Your task to perform on an android device: toggle notification dots Image 0: 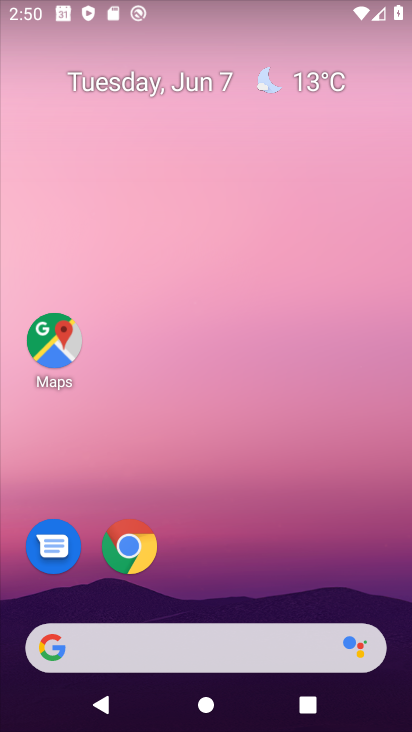
Step 0: drag from (211, 590) to (292, 135)
Your task to perform on an android device: toggle notification dots Image 1: 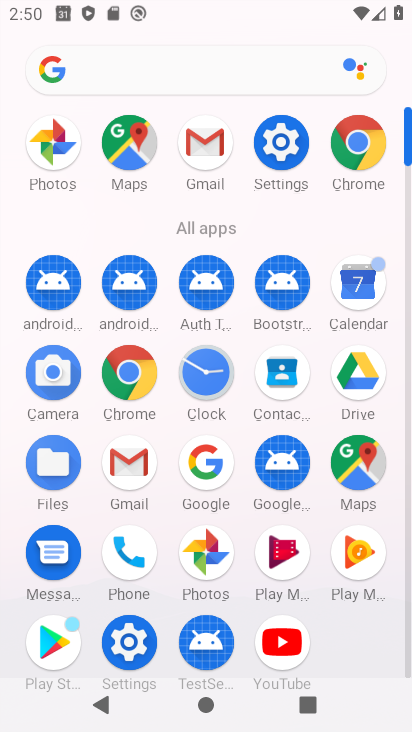
Step 1: click (280, 133)
Your task to perform on an android device: toggle notification dots Image 2: 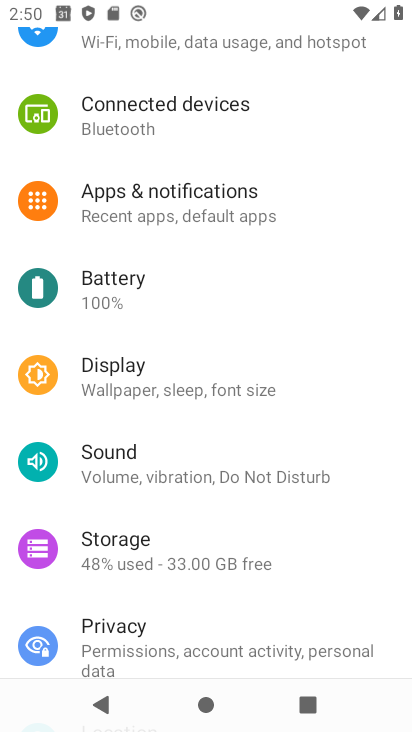
Step 2: click (155, 190)
Your task to perform on an android device: toggle notification dots Image 3: 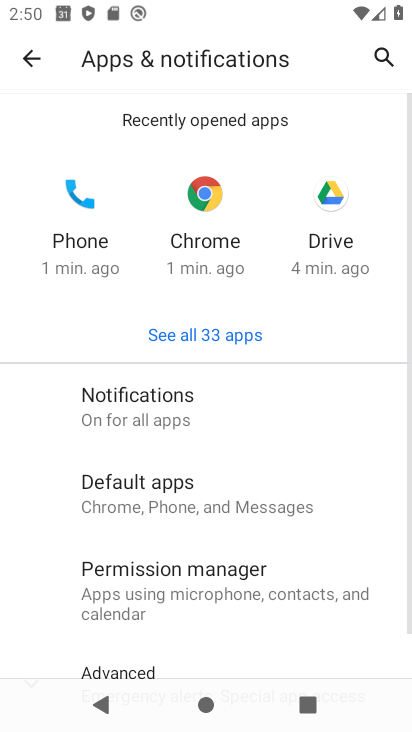
Step 3: click (146, 413)
Your task to perform on an android device: toggle notification dots Image 4: 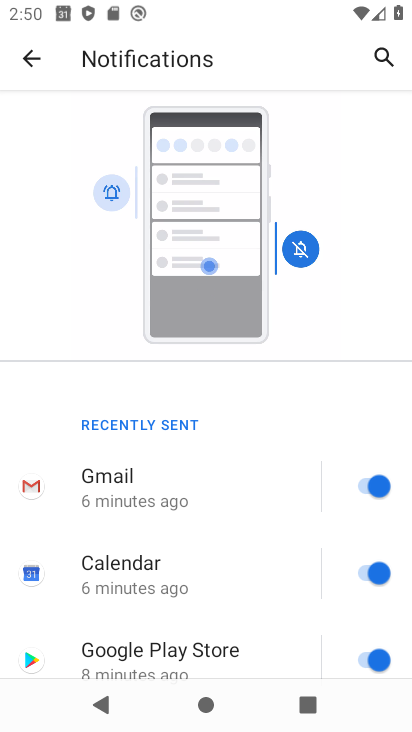
Step 4: drag from (131, 613) to (206, 202)
Your task to perform on an android device: toggle notification dots Image 5: 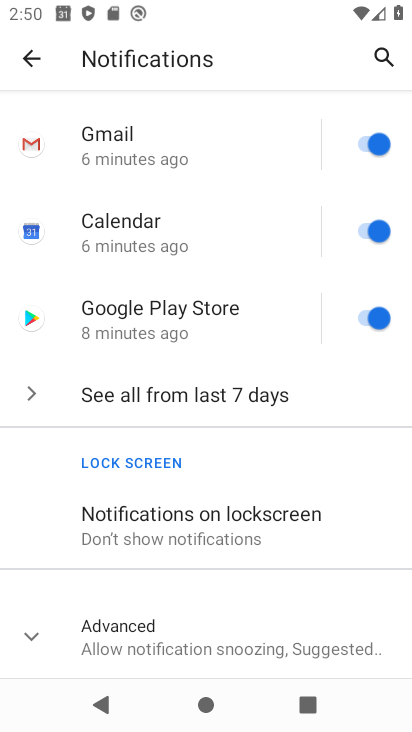
Step 5: click (152, 639)
Your task to perform on an android device: toggle notification dots Image 6: 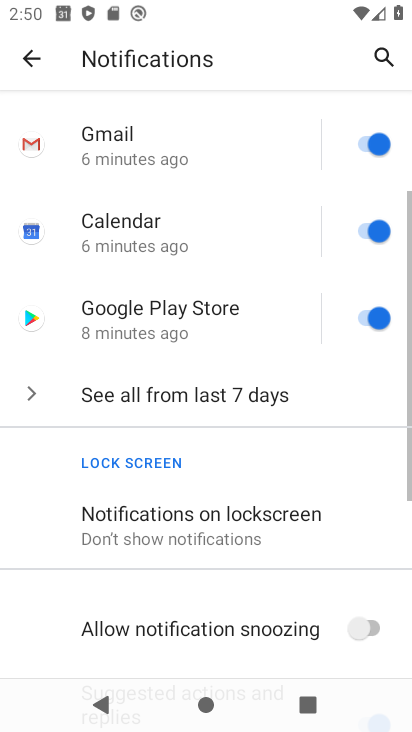
Step 6: drag from (187, 524) to (246, 223)
Your task to perform on an android device: toggle notification dots Image 7: 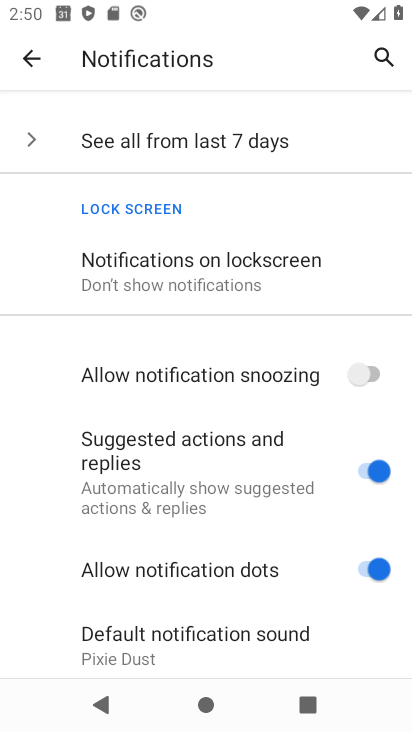
Step 7: click (382, 569)
Your task to perform on an android device: toggle notification dots Image 8: 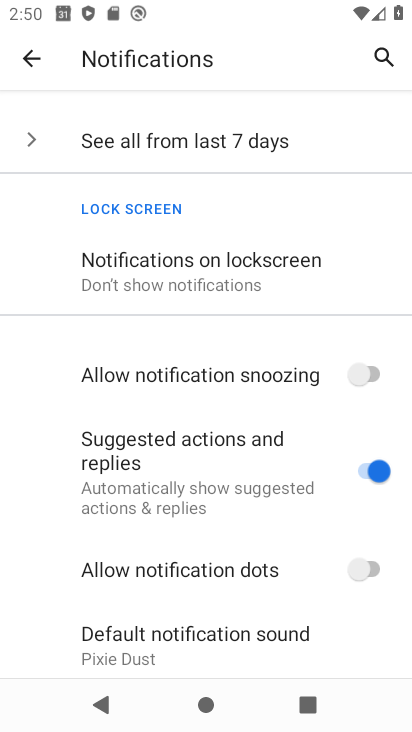
Step 8: task complete